Your task to perform on an android device: Find coffee shops on Maps Image 0: 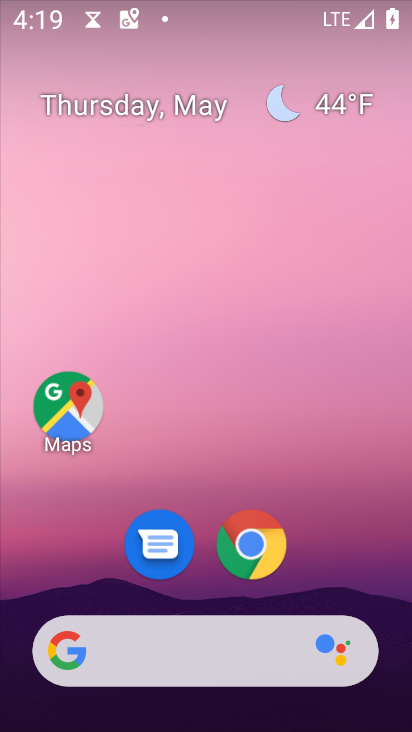
Step 0: click (61, 413)
Your task to perform on an android device: Find coffee shops on Maps Image 1: 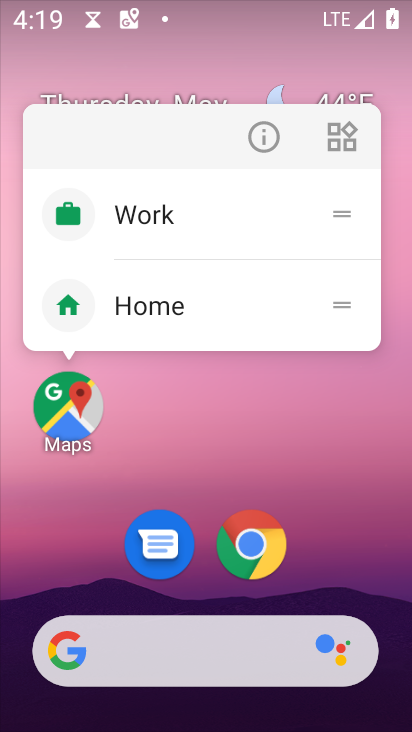
Step 1: click (61, 413)
Your task to perform on an android device: Find coffee shops on Maps Image 2: 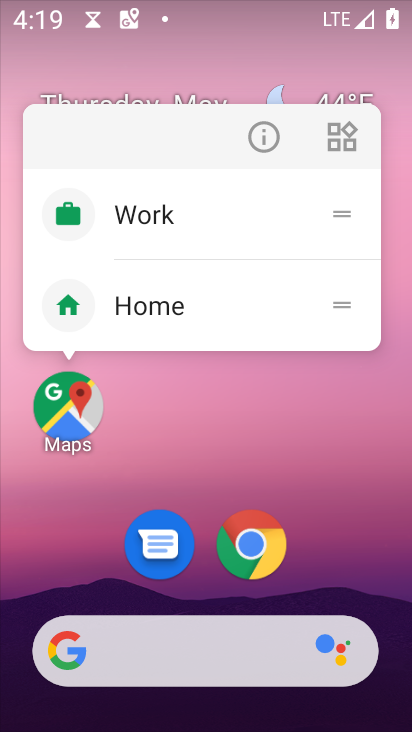
Step 2: click (61, 413)
Your task to perform on an android device: Find coffee shops on Maps Image 3: 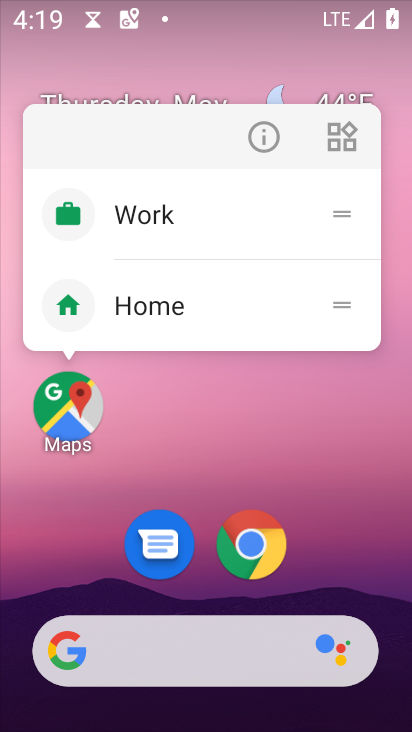
Step 3: click (58, 415)
Your task to perform on an android device: Find coffee shops on Maps Image 4: 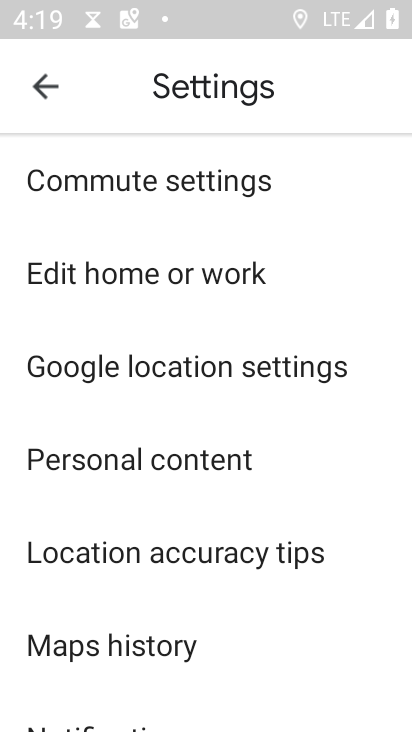
Step 4: click (36, 85)
Your task to perform on an android device: Find coffee shops on Maps Image 5: 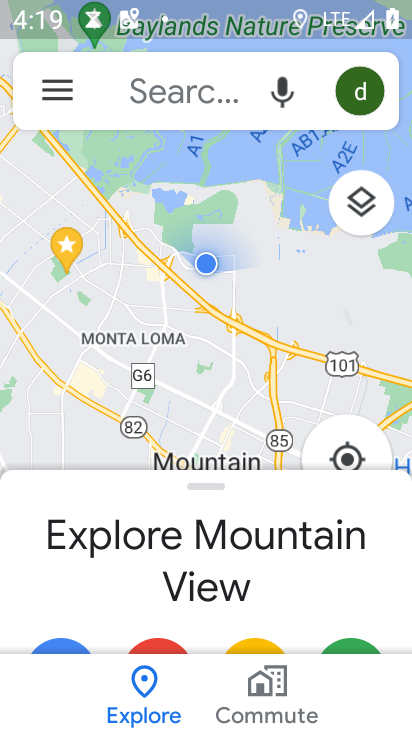
Step 5: click (184, 89)
Your task to perform on an android device: Find coffee shops on Maps Image 6: 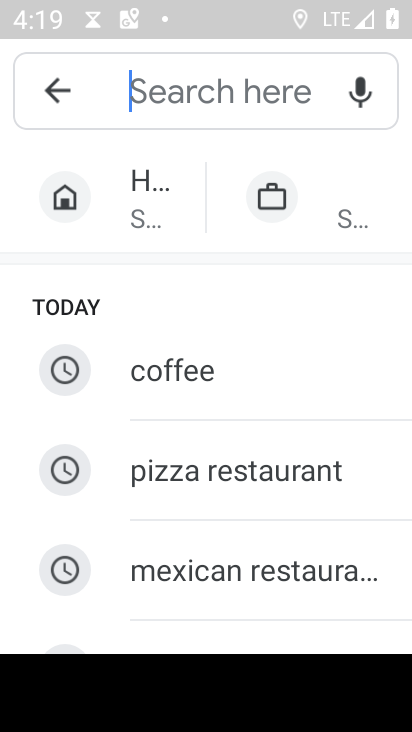
Step 6: type "coffee shops"
Your task to perform on an android device: Find coffee shops on Maps Image 7: 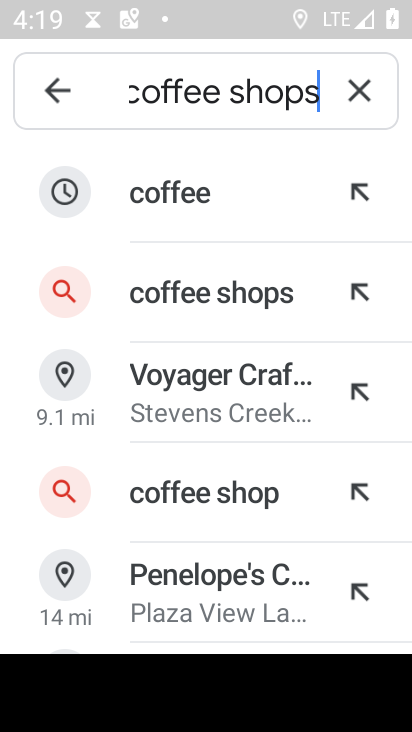
Step 7: click (235, 300)
Your task to perform on an android device: Find coffee shops on Maps Image 8: 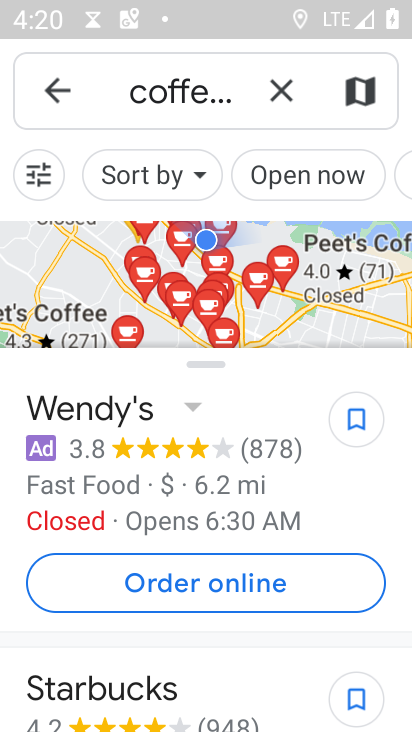
Step 8: task complete